Your task to perform on an android device: Go to display settings Image 0: 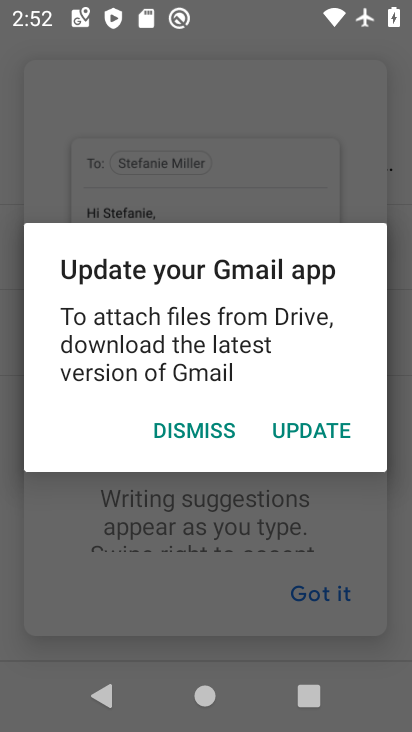
Step 0: press home button
Your task to perform on an android device: Go to display settings Image 1: 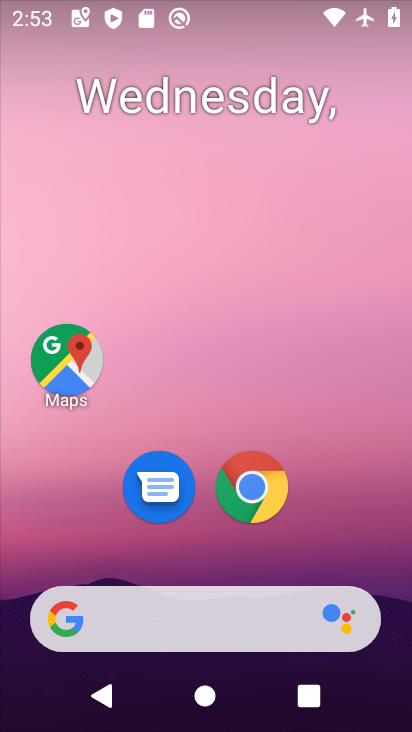
Step 1: drag from (337, 529) to (407, 232)
Your task to perform on an android device: Go to display settings Image 2: 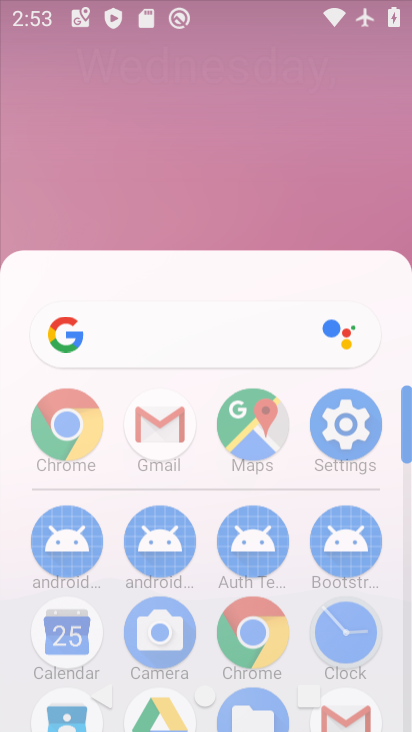
Step 2: click (332, 218)
Your task to perform on an android device: Go to display settings Image 3: 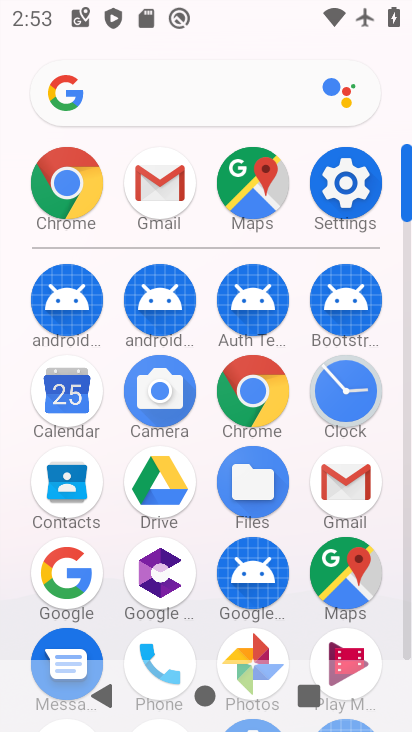
Step 3: click (348, 192)
Your task to perform on an android device: Go to display settings Image 4: 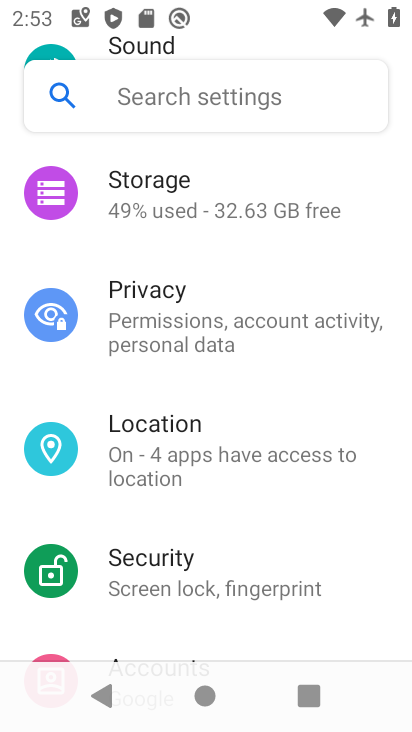
Step 4: drag from (172, 175) to (247, 576)
Your task to perform on an android device: Go to display settings Image 5: 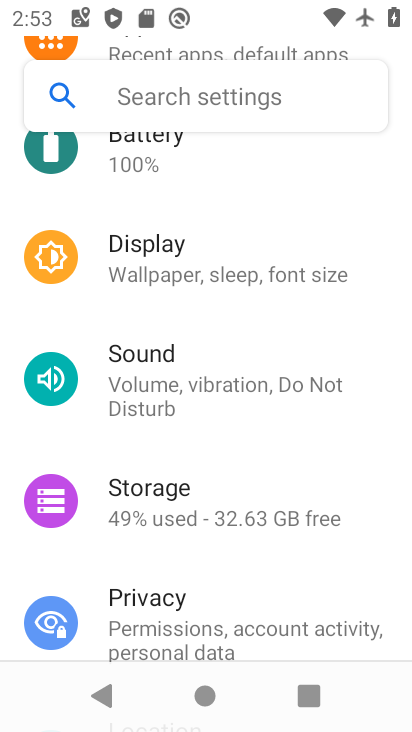
Step 5: click (145, 258)
Your task to perform on an android device: Go to display settings Image 6: 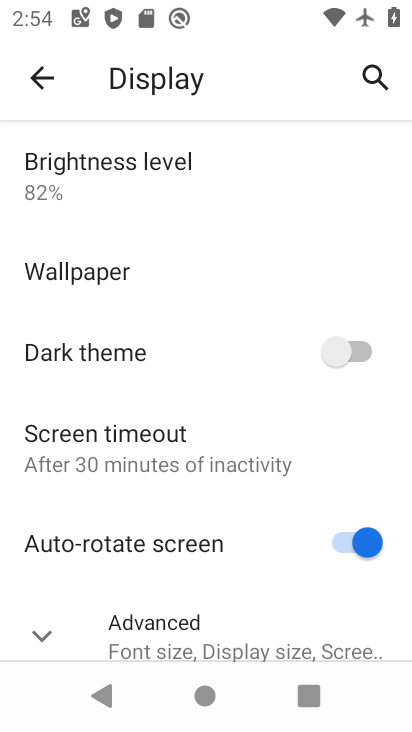
Step 6: task complete